Your task to perform on an android device: Open the calendar and show me this week's events? Image 0: 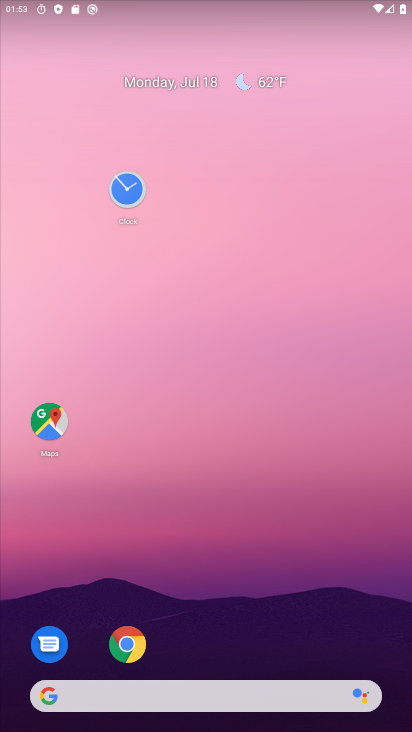
Step 0: drag from (234, 642) to (335, 39)
Your task to perform on an android device: Open the calendar and show me this week's events? Image 1: 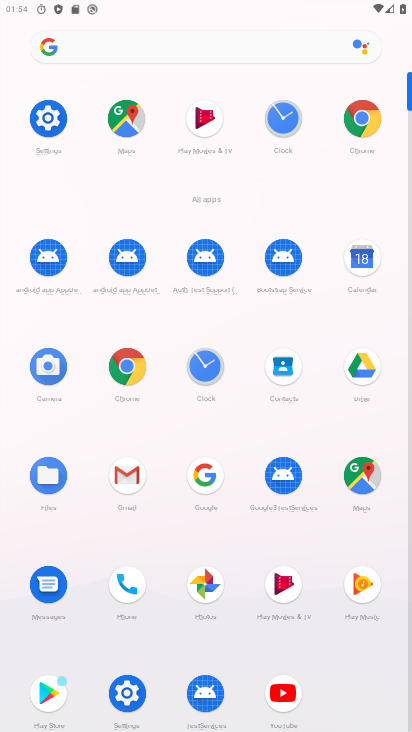
Step 1: click (355, 261)
Your task to perform on an android device: Open the calendar and show me this week's events? Image 2: 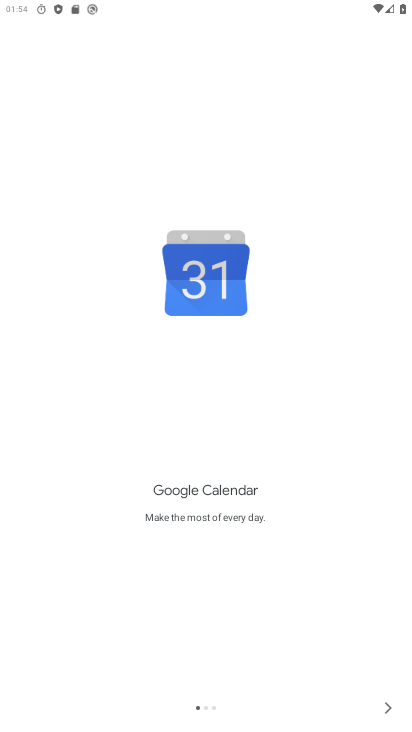
Step 2: click (383, 706)
Your task to perform on an android device: Open the calendar and show me this week's events? Image 3: 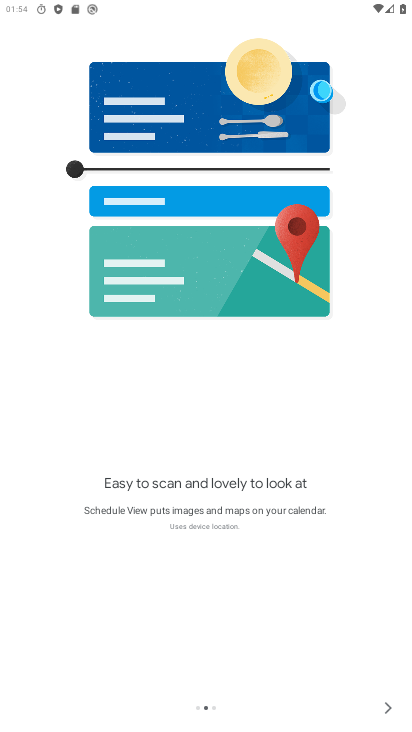
Step 3: click (381, 704)
Your task to perform on an android device: Open the calendar and show me this week's events? Image 4: 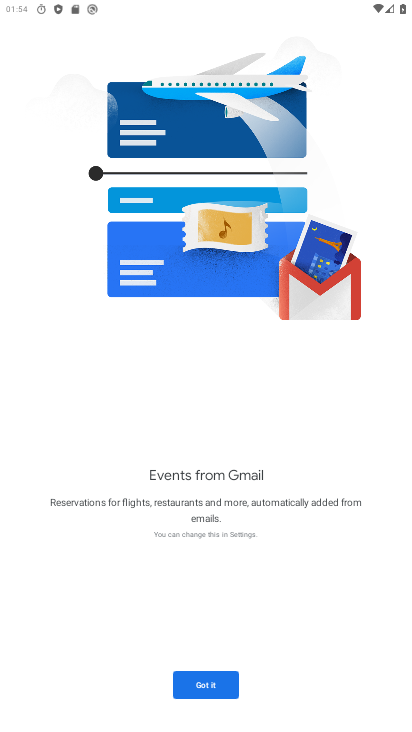
Step 4: click (201, 678)
Your task to perform on an android device: Open the calendar and show me this week's events? Image 5: 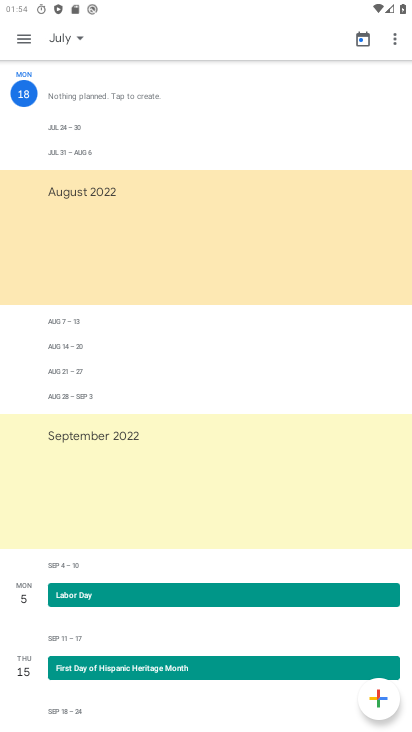
Step 5: click (16, 40)
Your task to perform on an android device: Open the calendar and show me this week's events? Image 6: 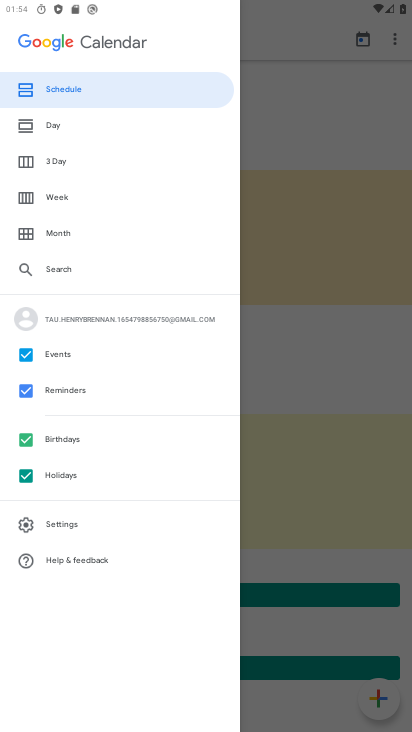
Step 6: click (83, 200)
Your task to perform on an android device: Open the calendar and show me this week's events? Image 7: 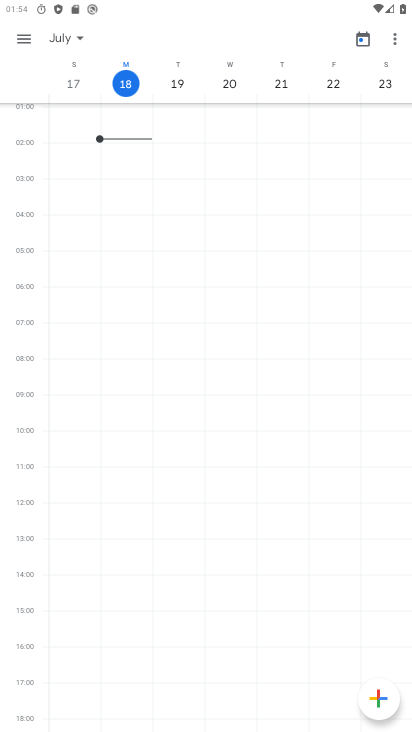
Step 7: task complete